Your task to perform on an android device: Go to settings Image 0: 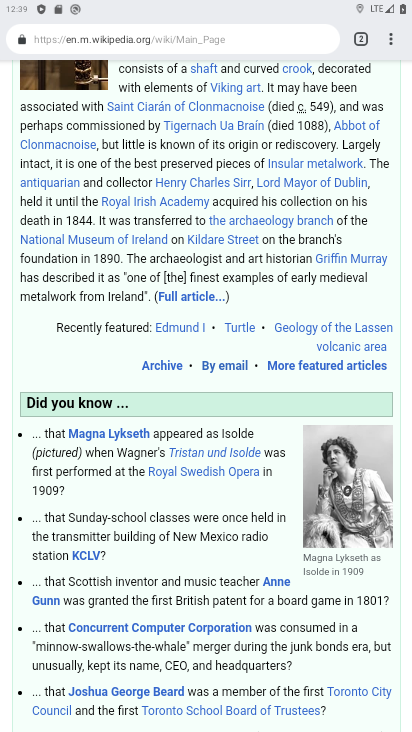
Step 0: press home button
Your task to perform on an android device: Go to settings Image 1: 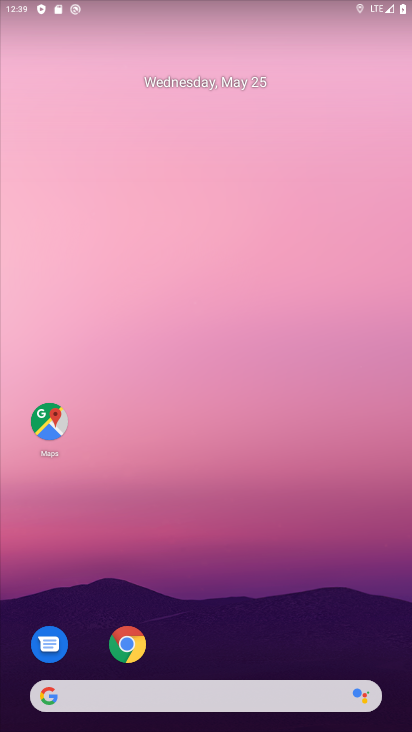
Step 1: drag from (213, 585) to (132, 54)
Your task to perform on an android device: Go to settings Image 2: 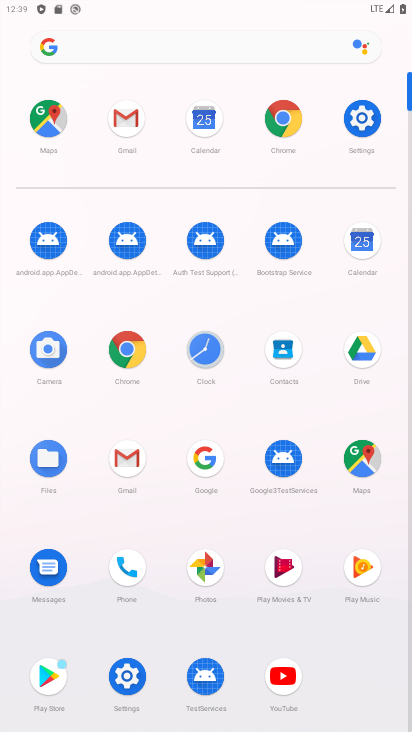
Step 2: click (357, 114)
Your task to perform on an android device: Go to settings Image 3: 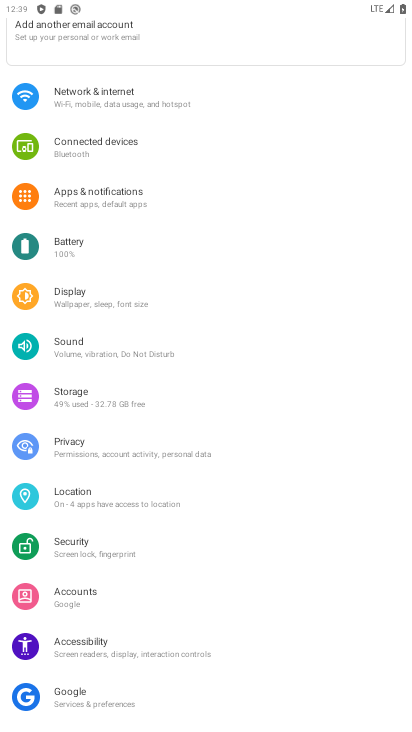
Step 3: task complete